Your task to perform on an android device: turn on translation in the chrome app Image 0: 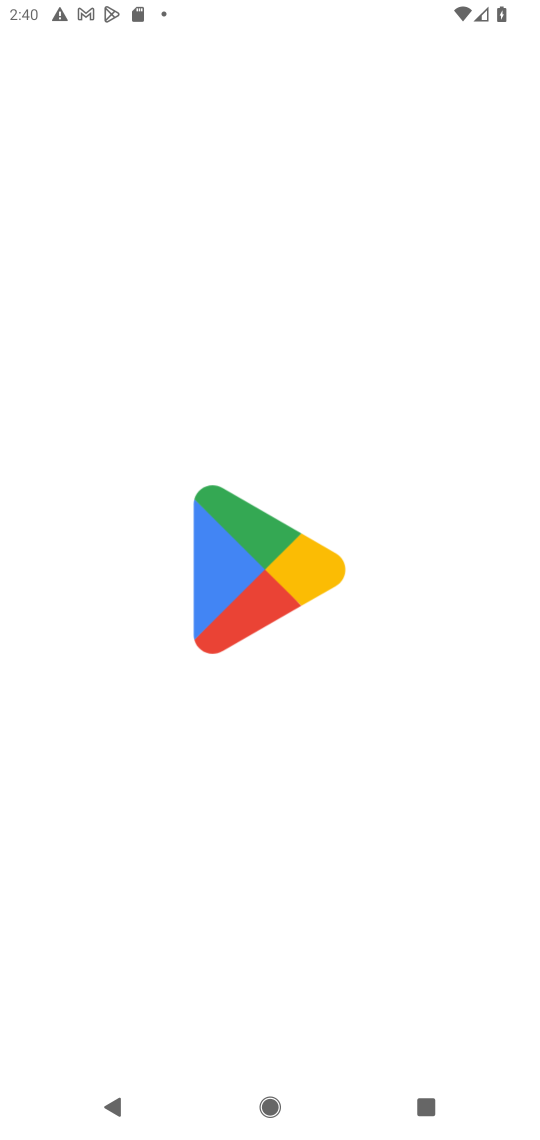
Step 0: press home button
Your task to perform on an android device: turn on translation in the chrome app Image 1: 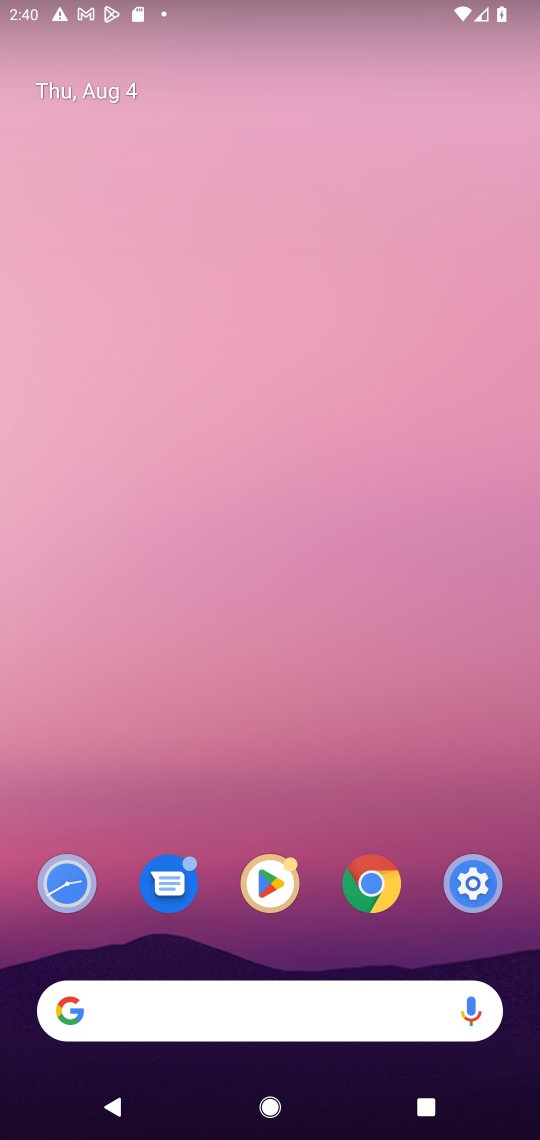
Step 1: click (376, 889)
Your task to perform on an android device: turn on translation in the chrome app Image 2: 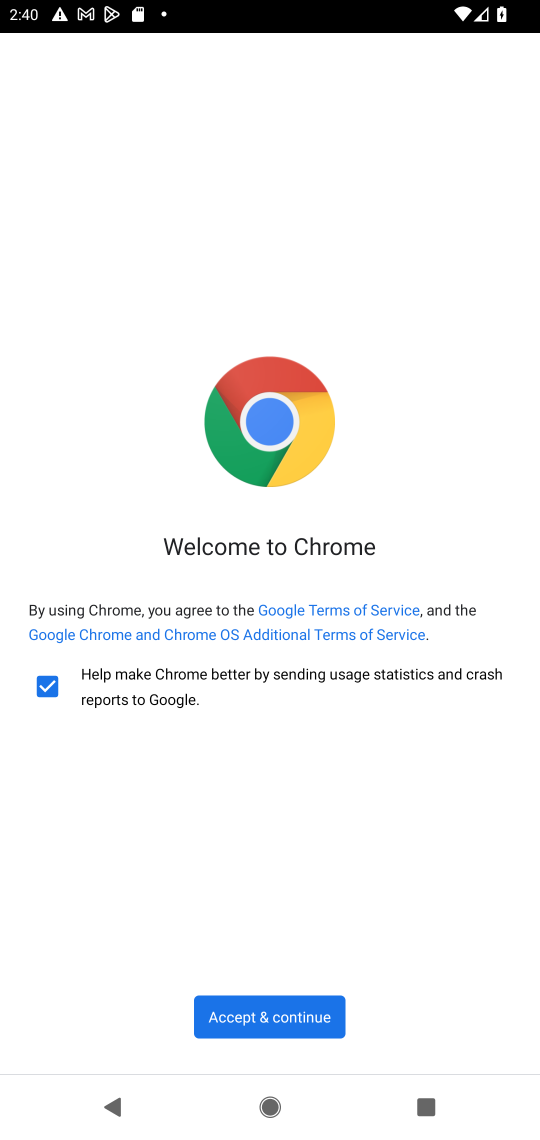
Step 2: click (255, 1012)
Your task to perform on an android device: turn on translation in the chrome app Image 3: 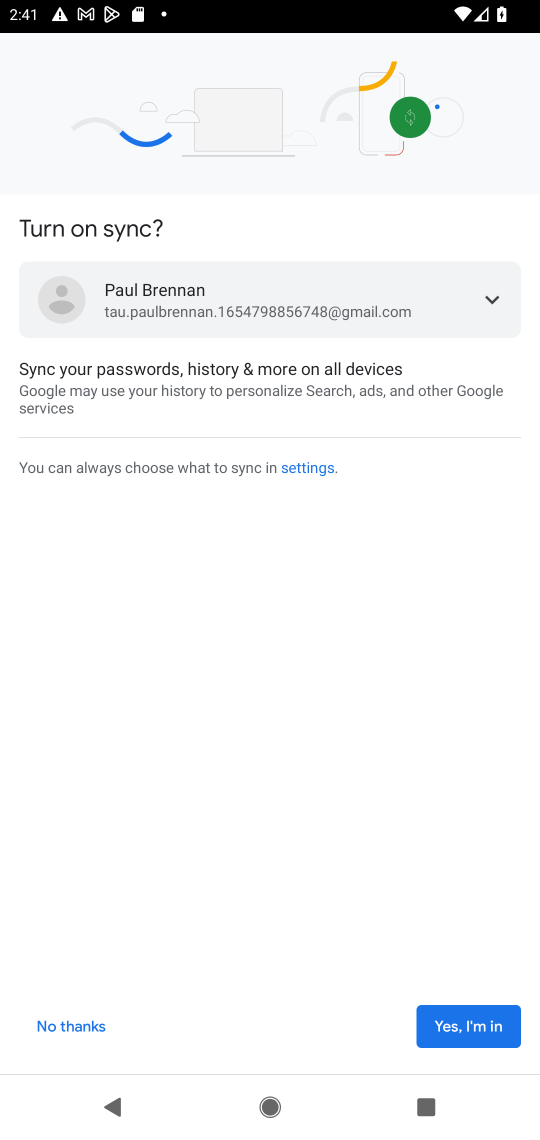
Step 3: click (462, 1026)
Your task to perform on an android device: turn on translation in the chrome app Image 4: 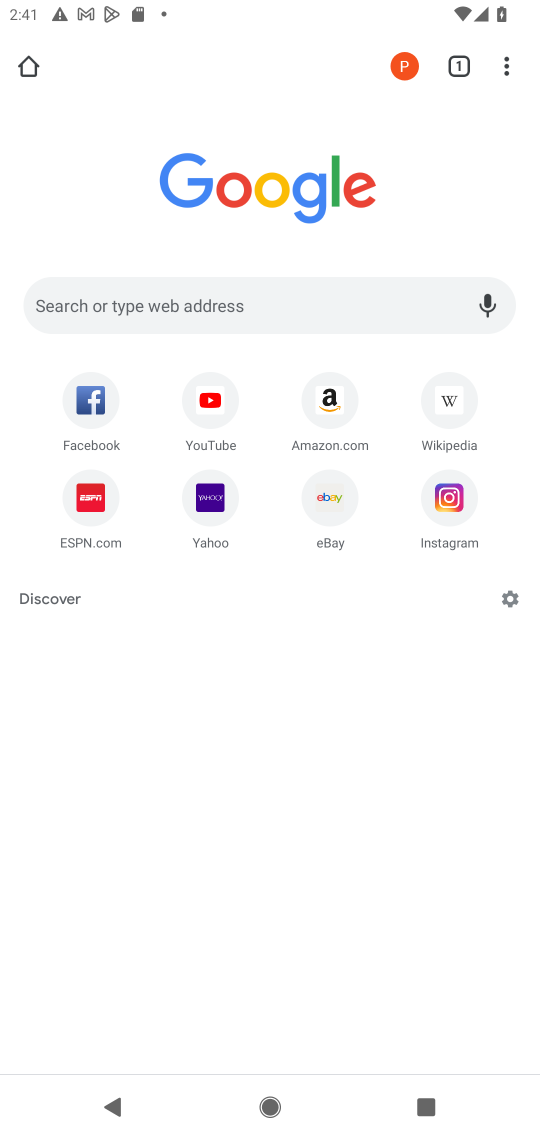
Step 4: click (508, 67)
Your task to perform on an android device: turn on translation in the chrome app Image 5: 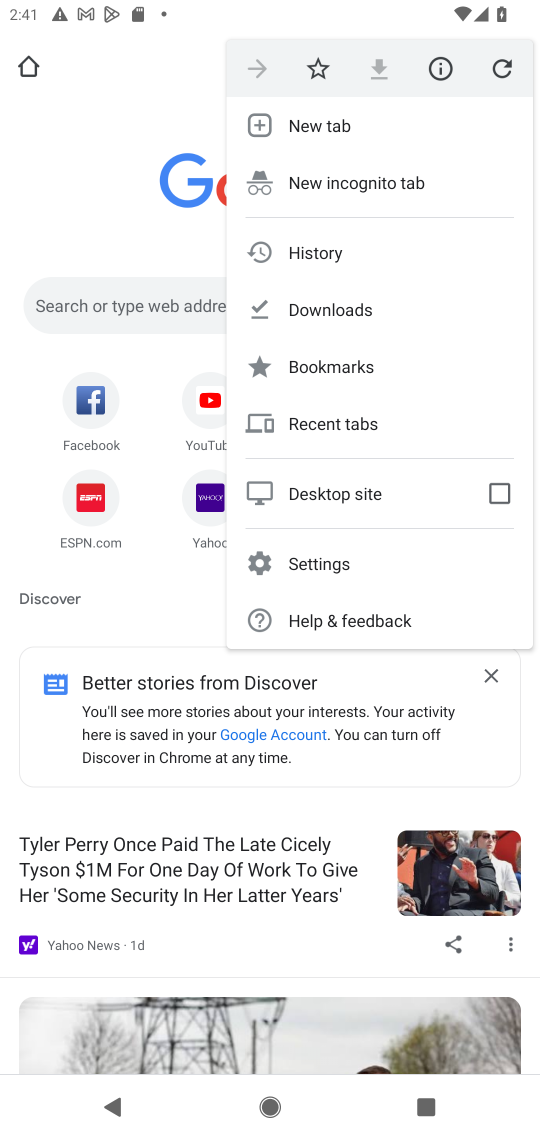
Step 5: click (308, 564)
Your task to perform on an android device: turn on translation in the chrome app Image 6: 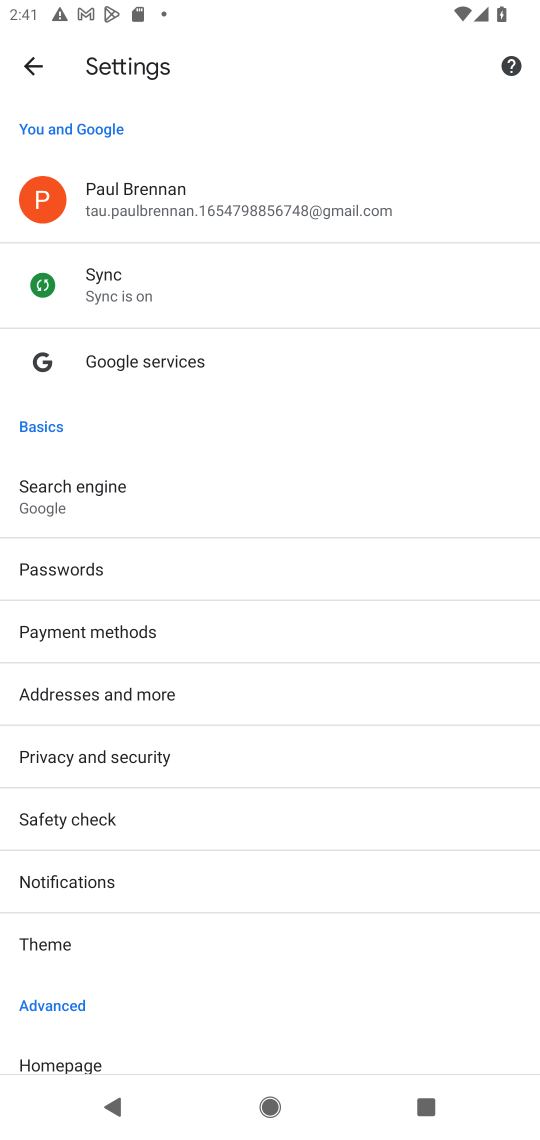
Step 6: drag from (157, 1046) to (185, 609)
Your task to perform on an android device: turn on translation in the chrome app Image 7: 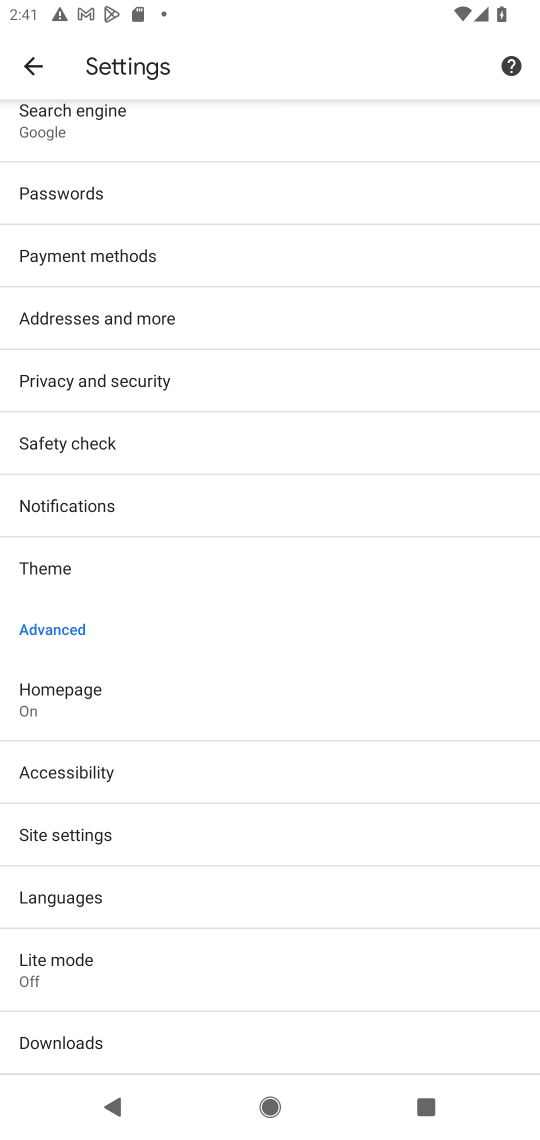
Step 7: click (73, 897)
Your task to perform on an android device: turn on translation in the chrome app Image 8: 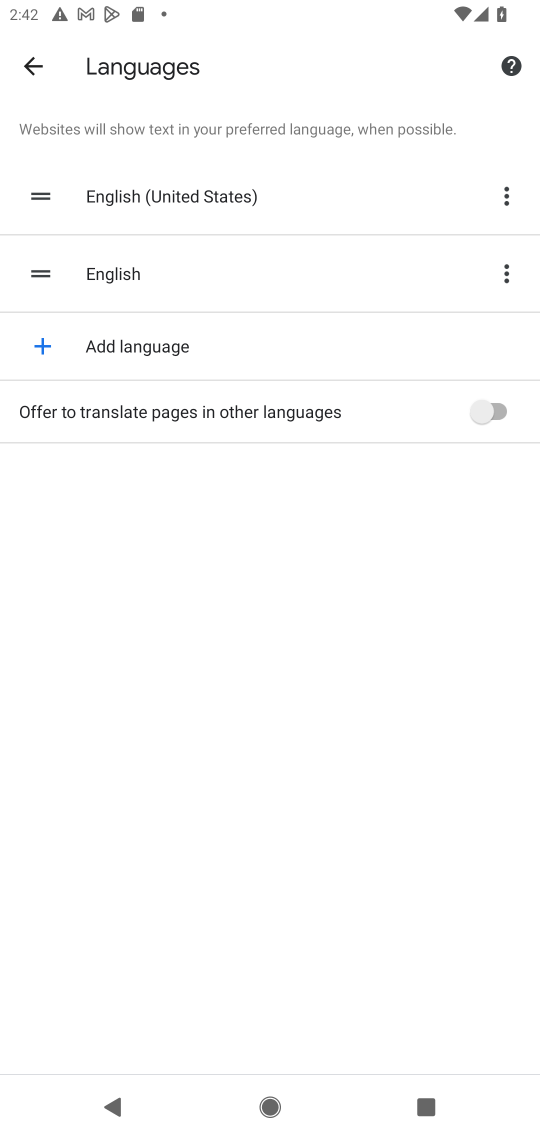
Step 8: click (489, 403)
Your task to perform on an android device: turn on translation in the chrome app Image 9: 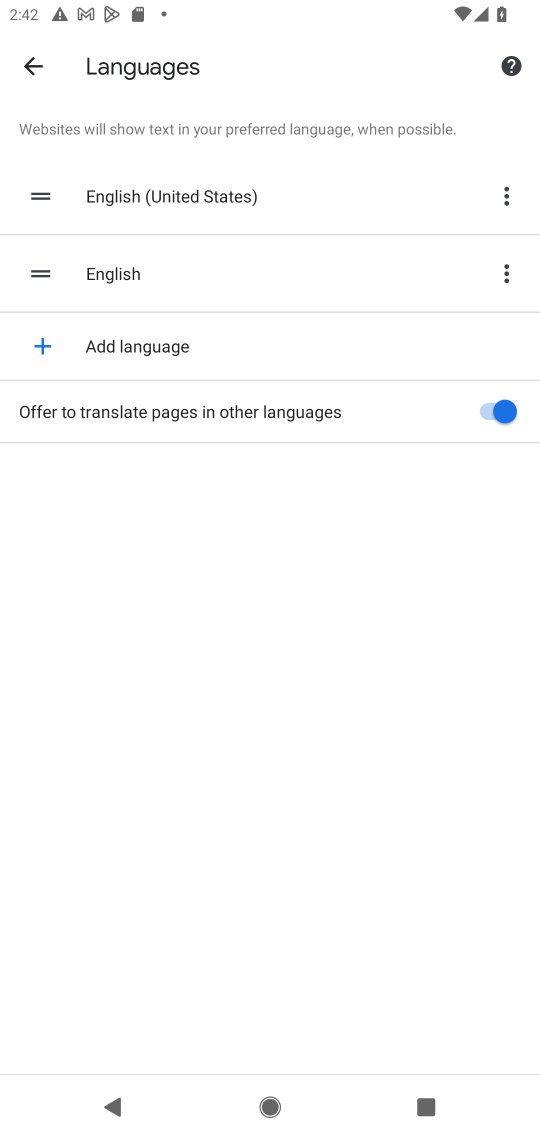
Step 9: task complete